Your task to perform on an android device: When is my next appointment? Image 0: 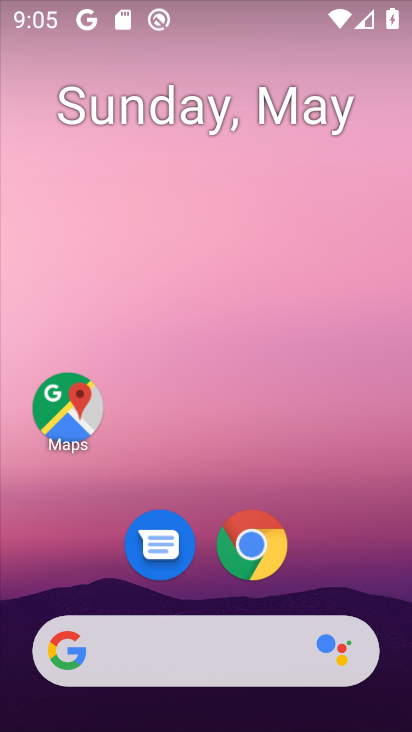
Step 0: drag from (192, 562) to (189, 214)
Your task to perform on an android device: When is my next appointment? Image 1: 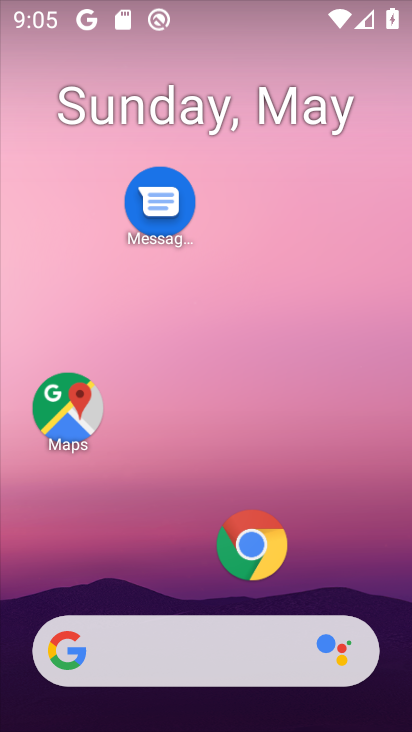
Step 1: drag from (263, 620) to (280, 192)
Your task to perform on an android device: When is my next appointment? Image 2: 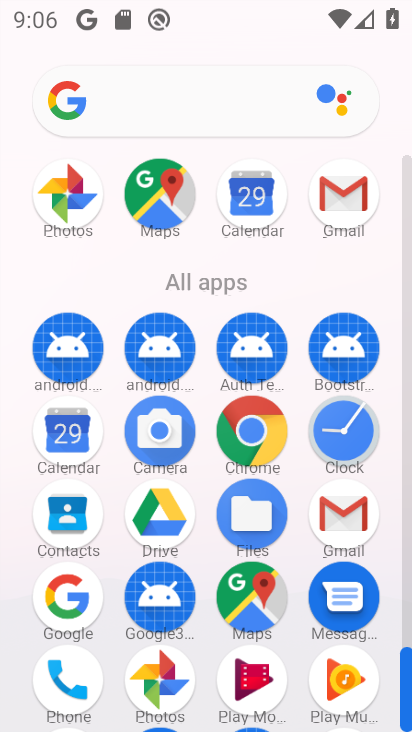
Step 2: click (228, 211)
Your task to perform on an android device: When is my next appointment? Image 3: 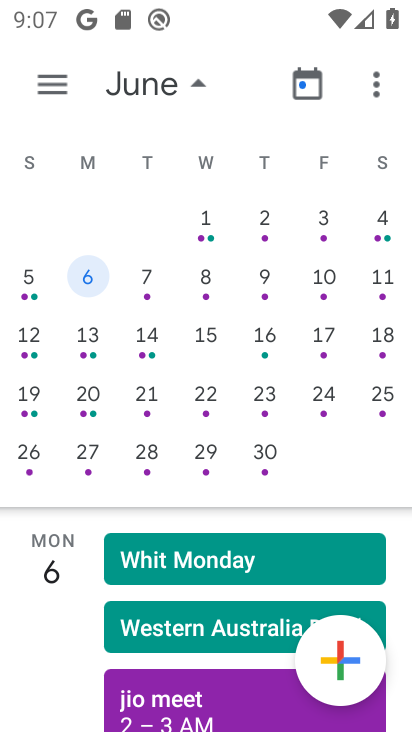
Step 3: click (152, 92)
Your task to perform on an android device: When is my next appointment? Image 4: 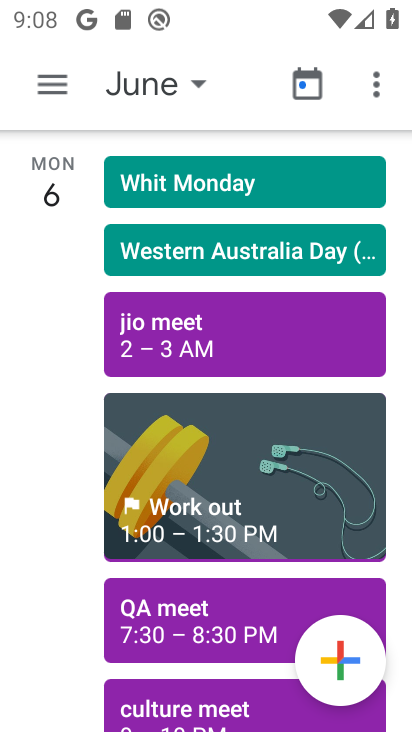
Step 4: drag from (195, 175) to (233, 583)
Your task to perform on an android device: When is my next appointment? Image 5: 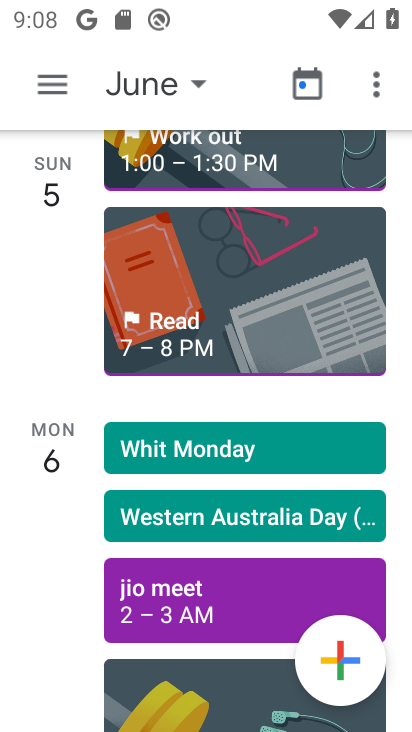
Step 5: click (126, 73)
Your task to perform on an android device: When is my next appointment? Image 6: 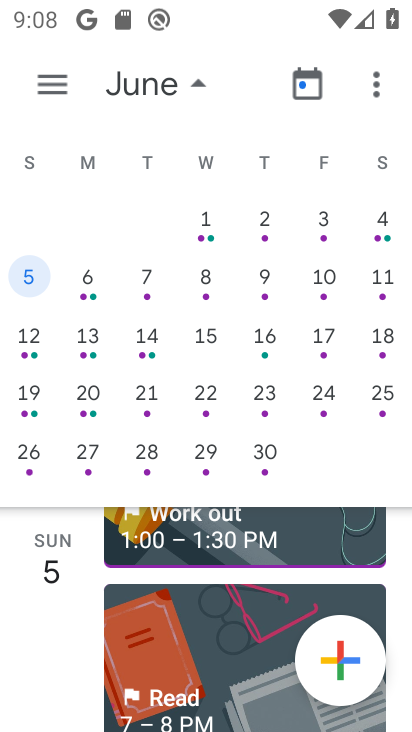
Step 6: drag from (39, 306) to (409, 369)
Your task to perform on an android device: When is my next appointment? Image 7: 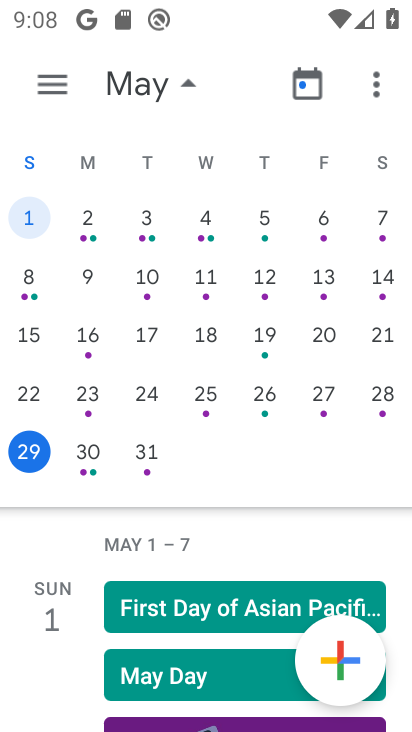
Step 7: click (30, 445)
Your task to perform on an android device: When is my next appointment? Image 8: 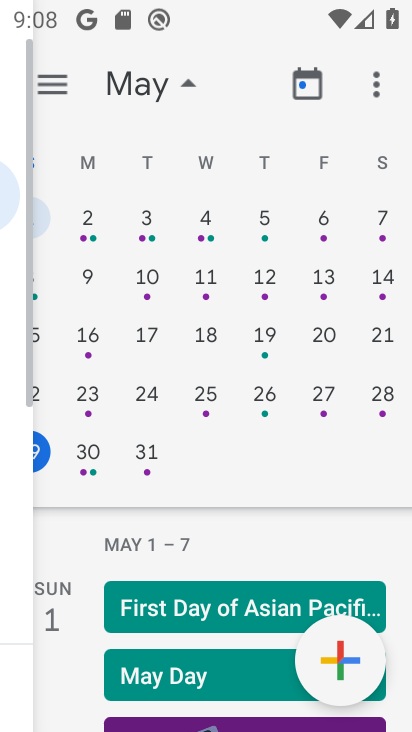
Step 8: drag from (185, 567) to (212, 336)
Your task to perform on an android device: When is my next appointment? Image 9: 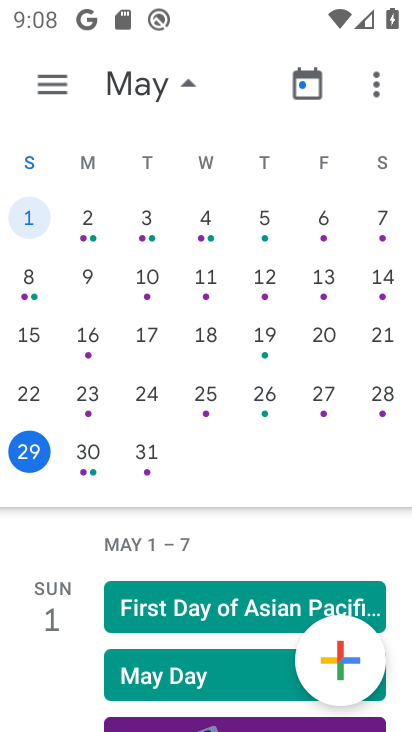
Step 9: click (16, 445)
Your task to perform on an android device: When is my next appointment? Image 10: 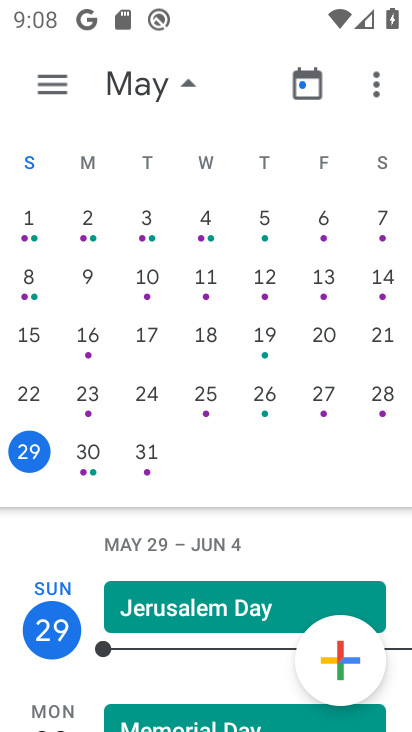
Step 10: drag from (210, 686) to (263, 413)
Your task to perform on an android device: When is my next appointment? Image 11: 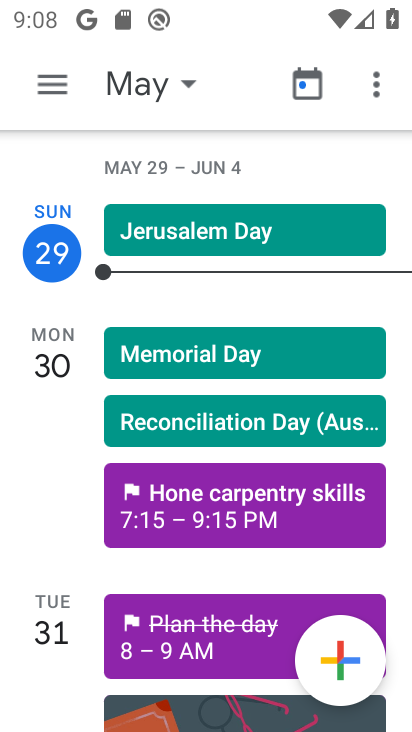
Step 11: click (208, 508)
Your task to perform on an android device: When is my next appointment? Image 12: 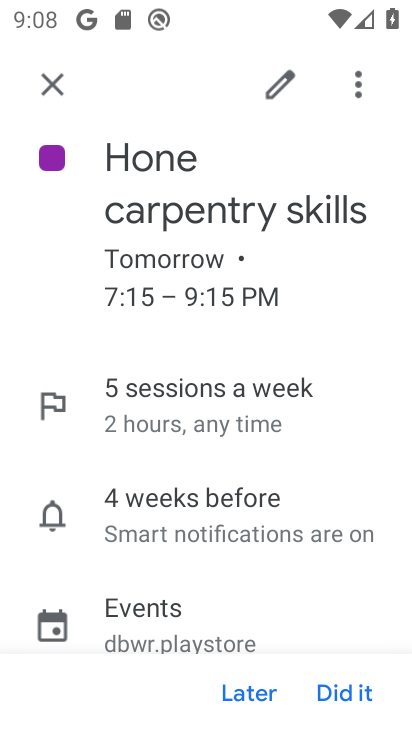
Step 12: task complete